Your task to perform on an android device: move an email to a new category in the gmail app Image 0: 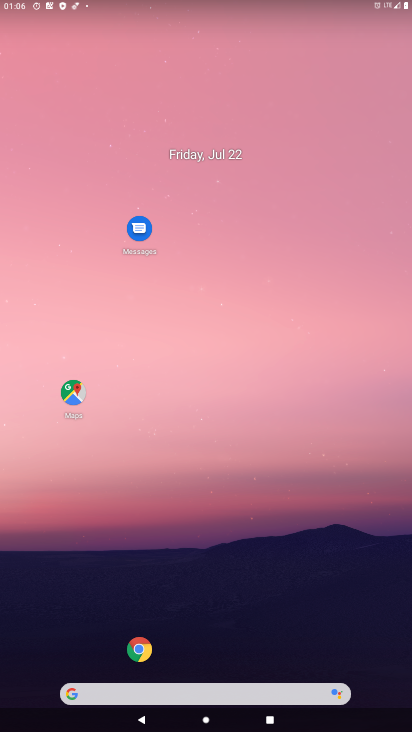
Step 0: drag from (28, 683) to (181, 318)
Your task to perform on an android device: move an email to a new category in the gmail app Image 1: 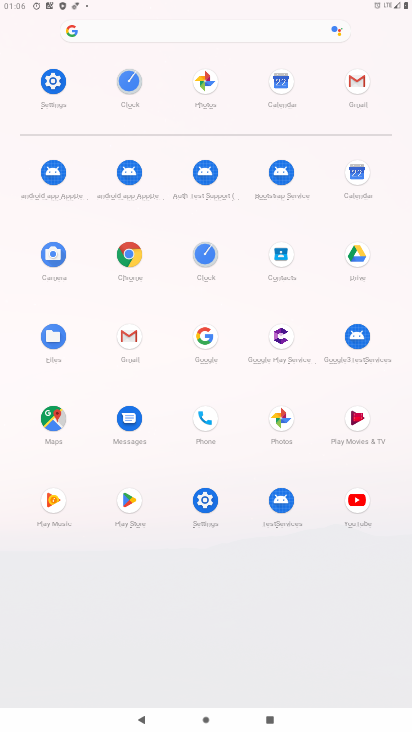
Step 1: click (132, 334)
Your task to perform on an android device: move an email to a new category in the gmail app Image 2: 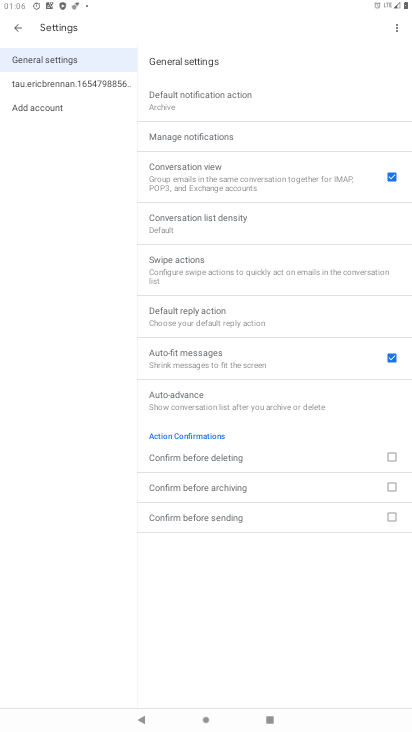
Step 2: click (22, 26)
Your task to perform on an android device: move an email to a new category in the gmail app Image 3: 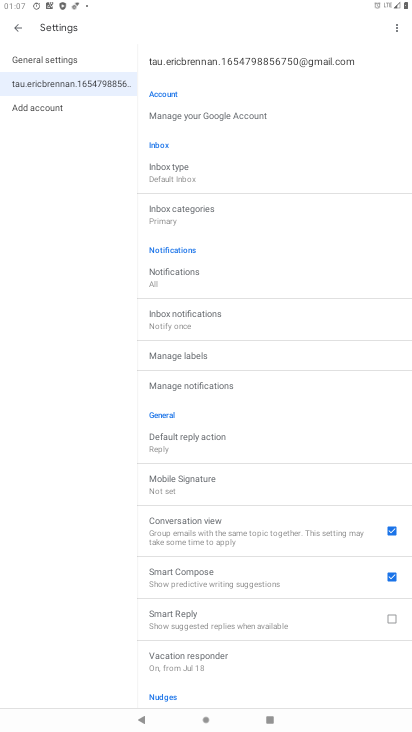
Step 3: click (14, 32)
Your task to perform on an android device: move an email to a new category in the gmail app Image 4: 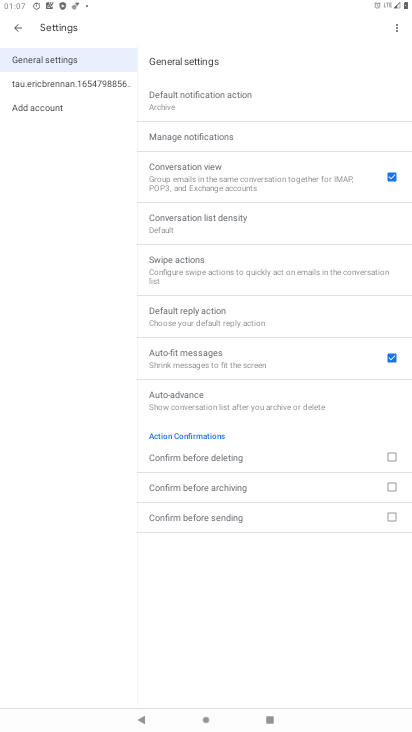
Step 4: click (17, 28)
Your task to perform on an android device: move an email to a new category in the gmail app Image 5: 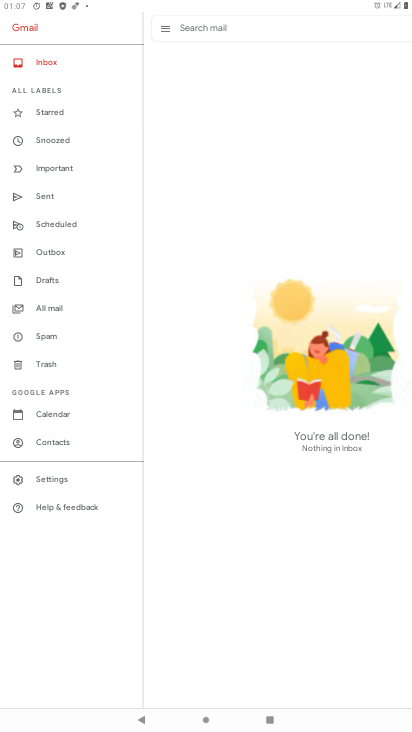
Step 5: click (62, 55)
Your task to perform on an android device: move an email to a new category in the gmail app Image 6: 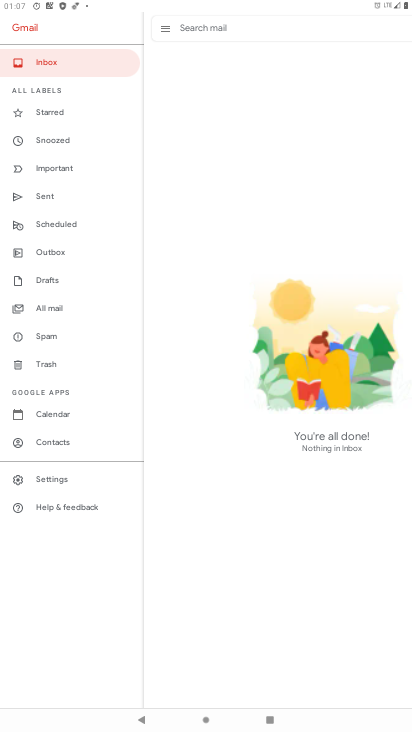
Step 6: task complete